Your task to perform on an android device: turn off location history Image 0: 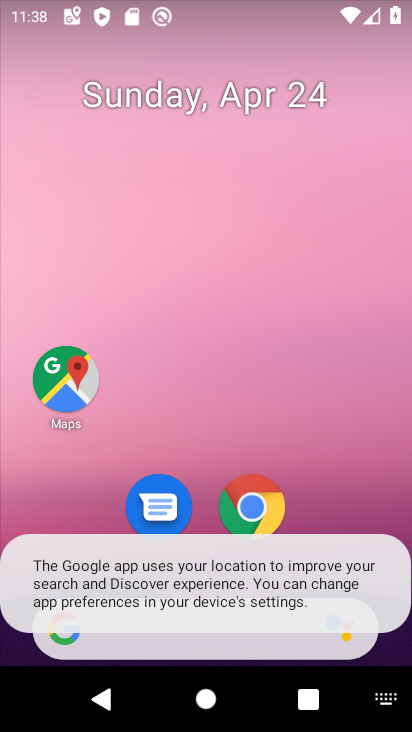
Step 0: drag from (325, 473) to (245, 48)
Your task to perform on an android device: turn off location history Image 1: 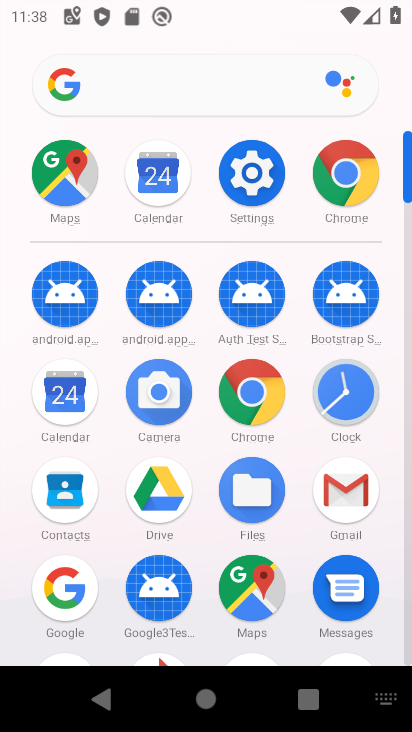
Step 1: drag from (14, 507) to (2, 452)
Your task to perform on an android device: turn off location history Image 2: 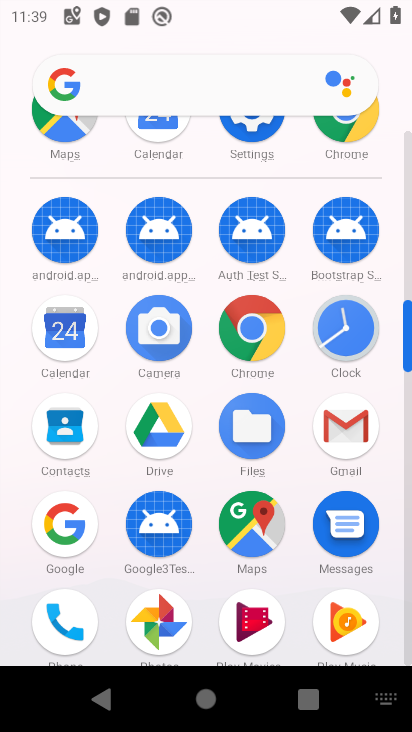
Step 2: drag from (18, 499) to (17, 319)
Your task to perform on an android device: turn off location history Image 3: 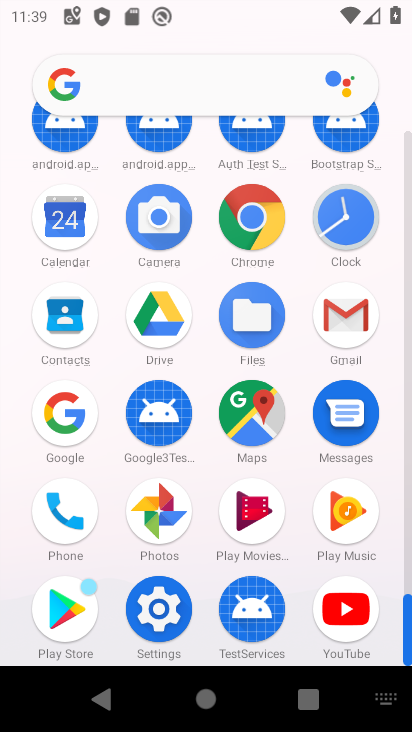
Step 3: click (161, 605)
Your task to perform on an android device: turn off location history Image 4: 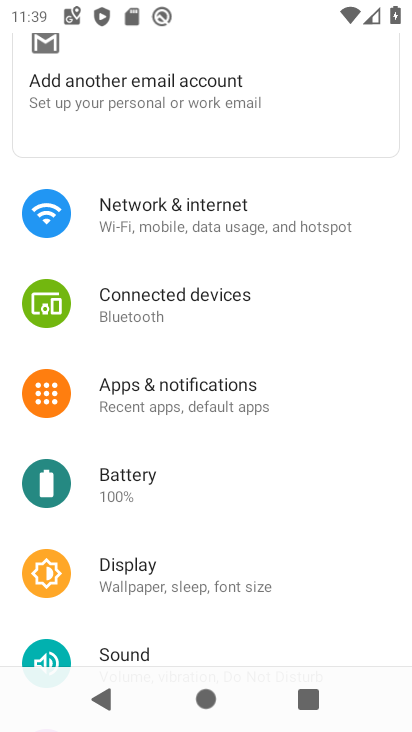
Step 4: click (242, 259)
Your task to perform on an android device: turn off location history Image 5: 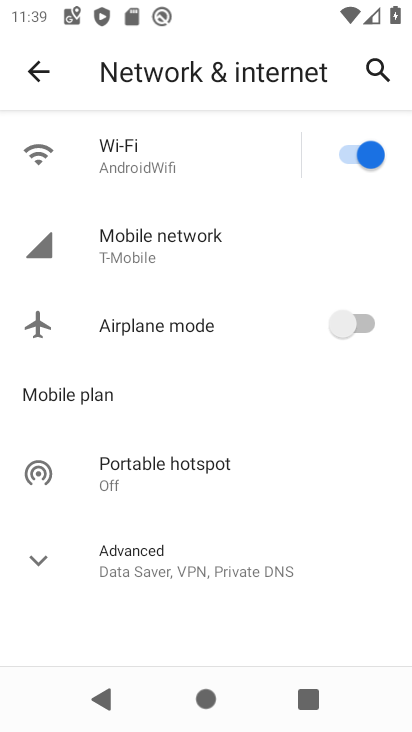
Step 5: click (46, 62)
Your task to perform on an android device: turn off location history Image 6: 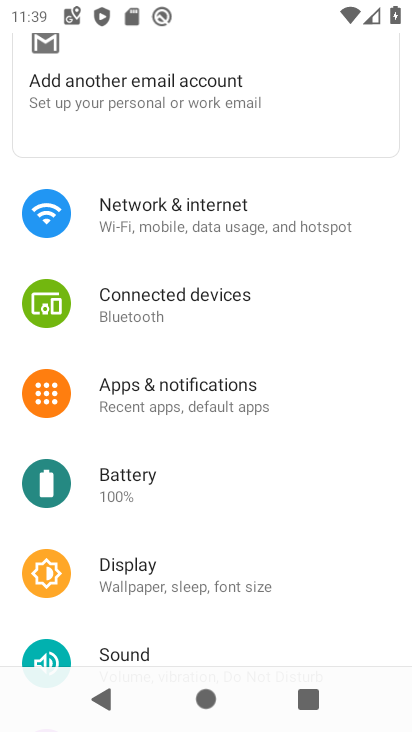
Step 6: drag from (258, 580) to (275, 162)
Your task to perform on an android device: turn off location history Image 7: 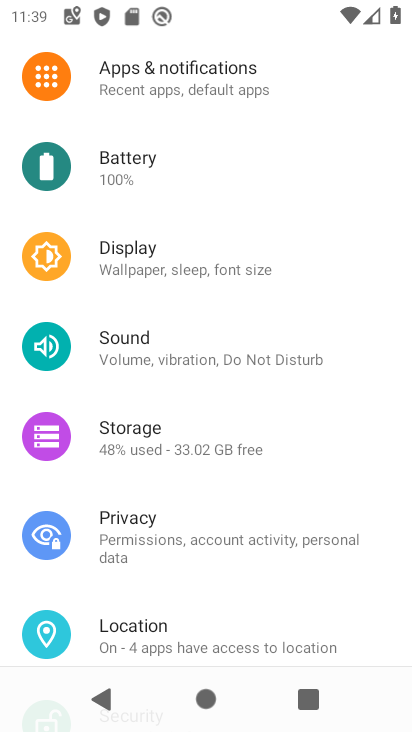
Step 7: click (170, 637)
Your task to perform on an android device: turn off location history Image 8: 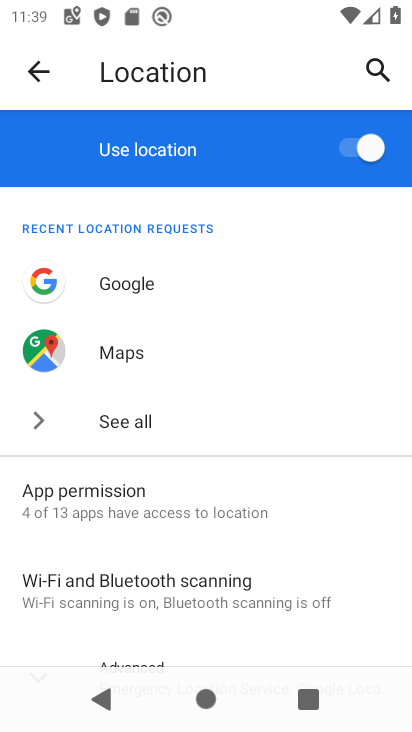
Step 8: drag from (223, 266) to (221, 180)
Your task to perform on an android device: turn off location history Image 9: 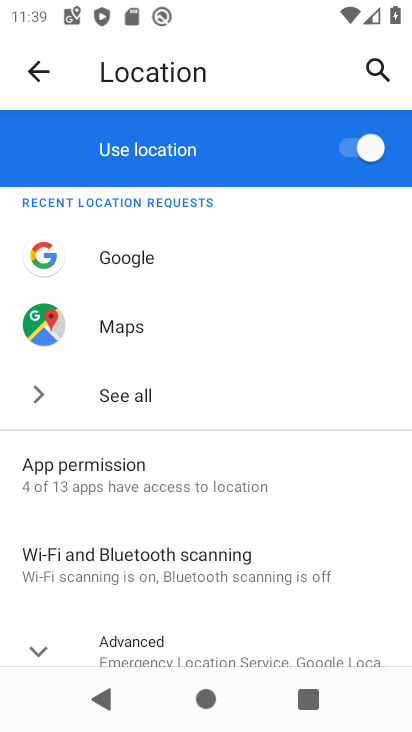
Step 9: drag from (186, 610) to (212, 219)
Your task to perform on an android device: turn off location history Image 10: 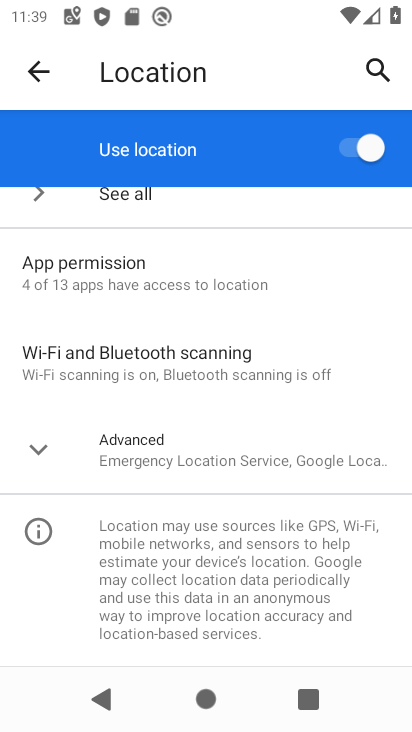
Step 10: click (154, 435)
Your task to perform on an android device: turn off location history Image 11: 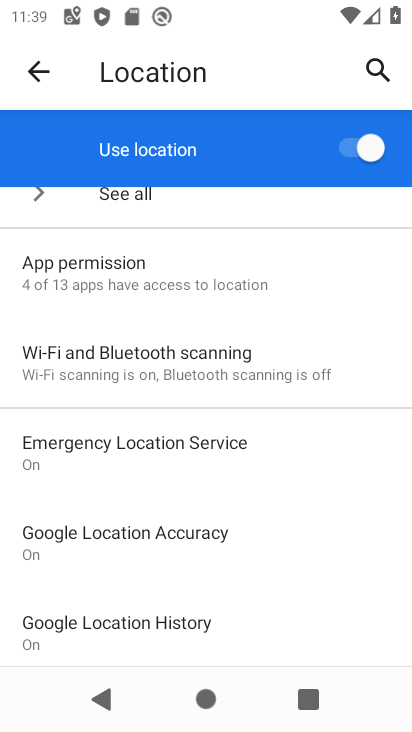
Step 11: click (163, 619)
Your task to perform on an android device: turn off location history Image 12: 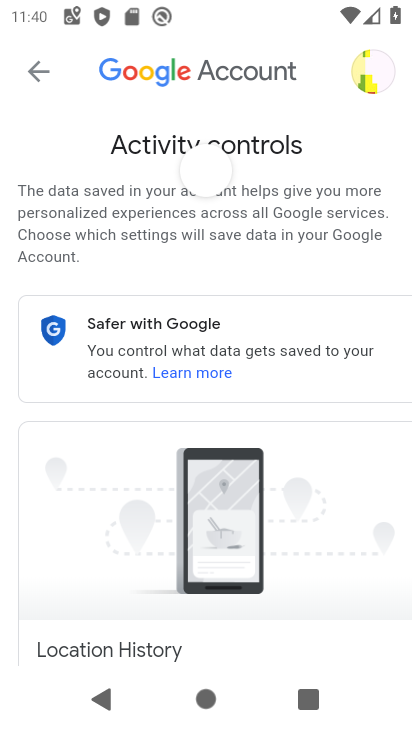
Step 12: task complete